Your task to perform on an android device: toggle wifi Image 0: 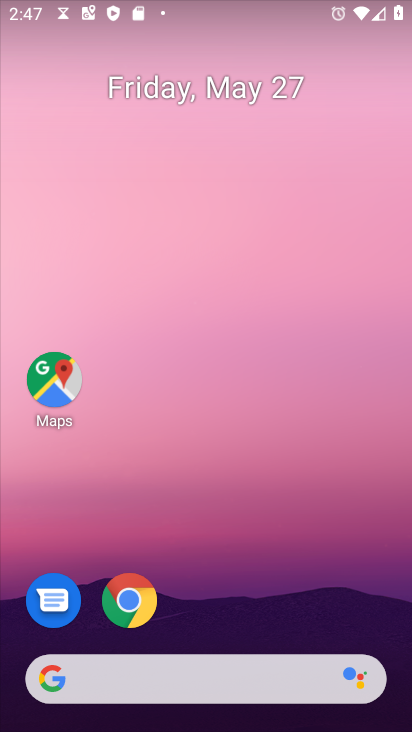
Step 0: drag from (173, 525) to (164, 97)
Your task to perform on an android device: toggle wifi Image 1: 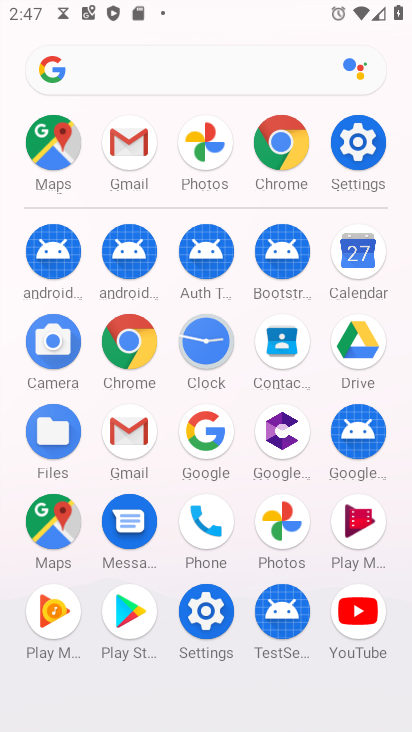
Step 1: click (204, 612)
Your task to perform on an android device: toggle wifi Image 2: 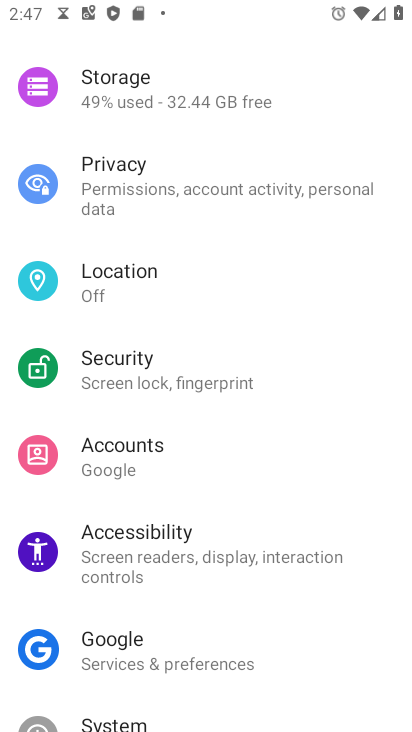
Step 2: drag from (321, 204) to (283, 646)
Your task to perform on an android device: toggle wifi Image 3: 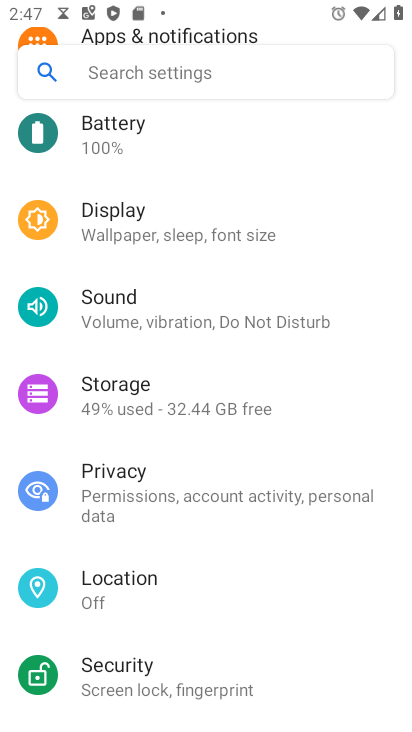
Step 3: drag from (273, 185) to (230, 611)
Your task to perform on an android device: toggle wifi Image 4: 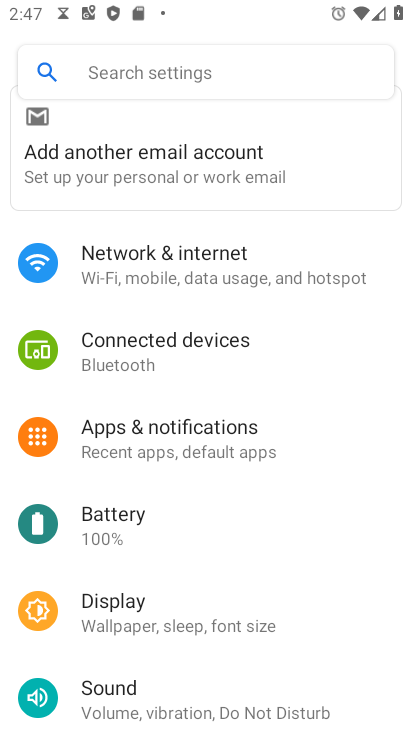
Step 4: click (230, 258)
Your task to perform on an android device: toggle wifi Image 5: 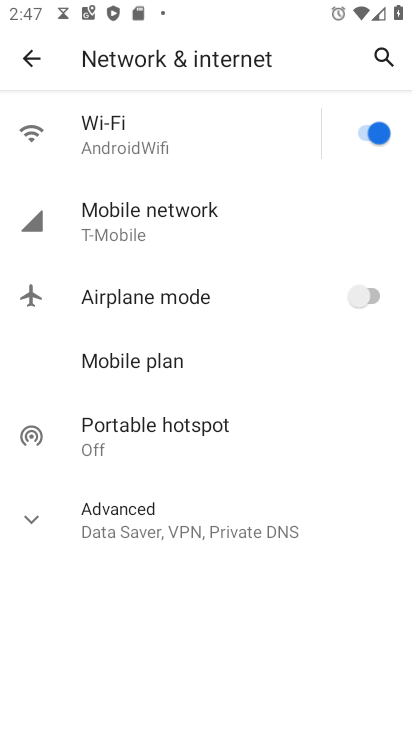
Step 5: click (368, 129)
Your task to perform on an android device: toggle wifi Image 6: 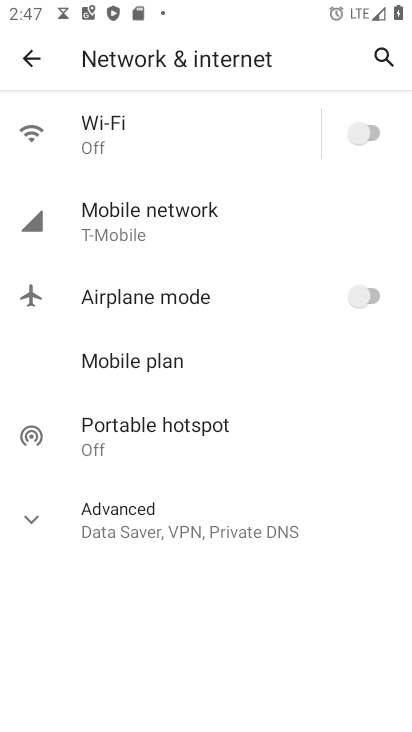
Step 6: click (27, 516)
Your task to perform on an android device: toggle wifi Image 7: 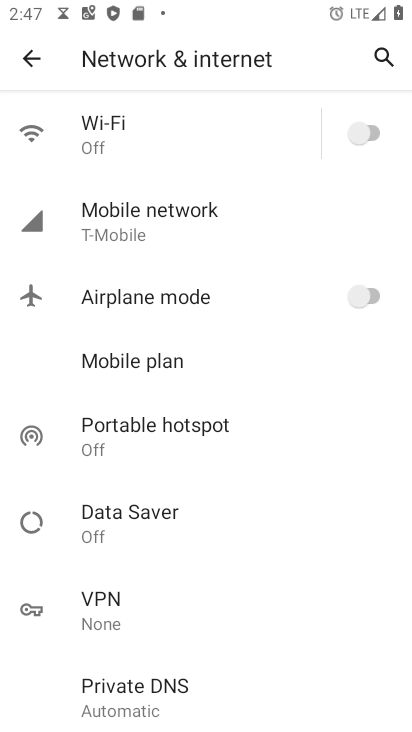
Step 7: task complete